Your task to perform on an android device: Open settings on Google Maps Image 0: 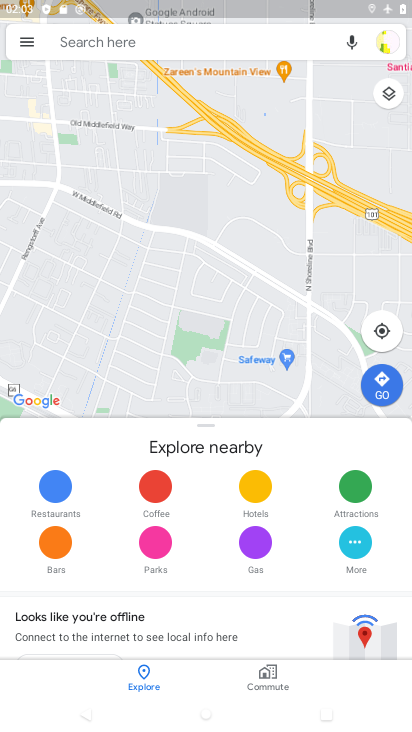
Step 0: click (25, 40)
Your task to perform on an android device: Open settings on Google Maps Image 1: 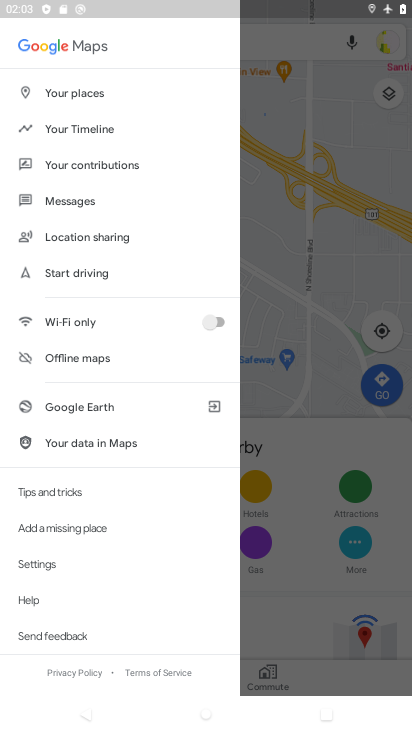
Step 1: click (43, 566)
Your task to perform on an android device: Open settings on Google Maps Image 2: 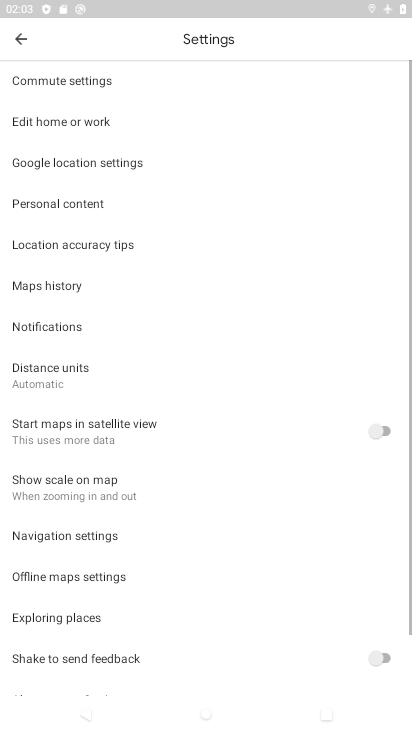
Step 2: task complete